Your task to perform on an android device: uninstall "Move to iOS" Image 0: 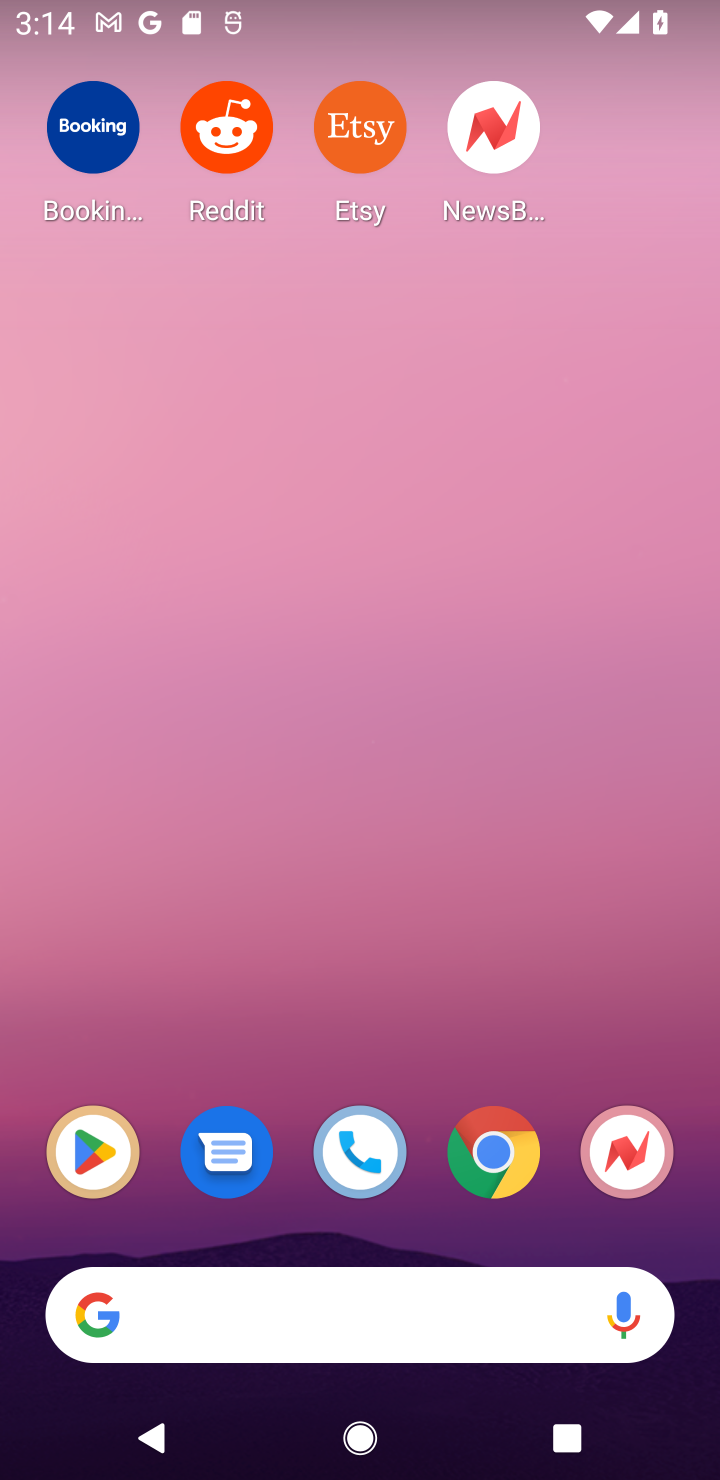
Step 0: drag from (450, 1248) to (273, 384)
Your task to perform on an android device: uninstall "Move to iOS" Image 1: 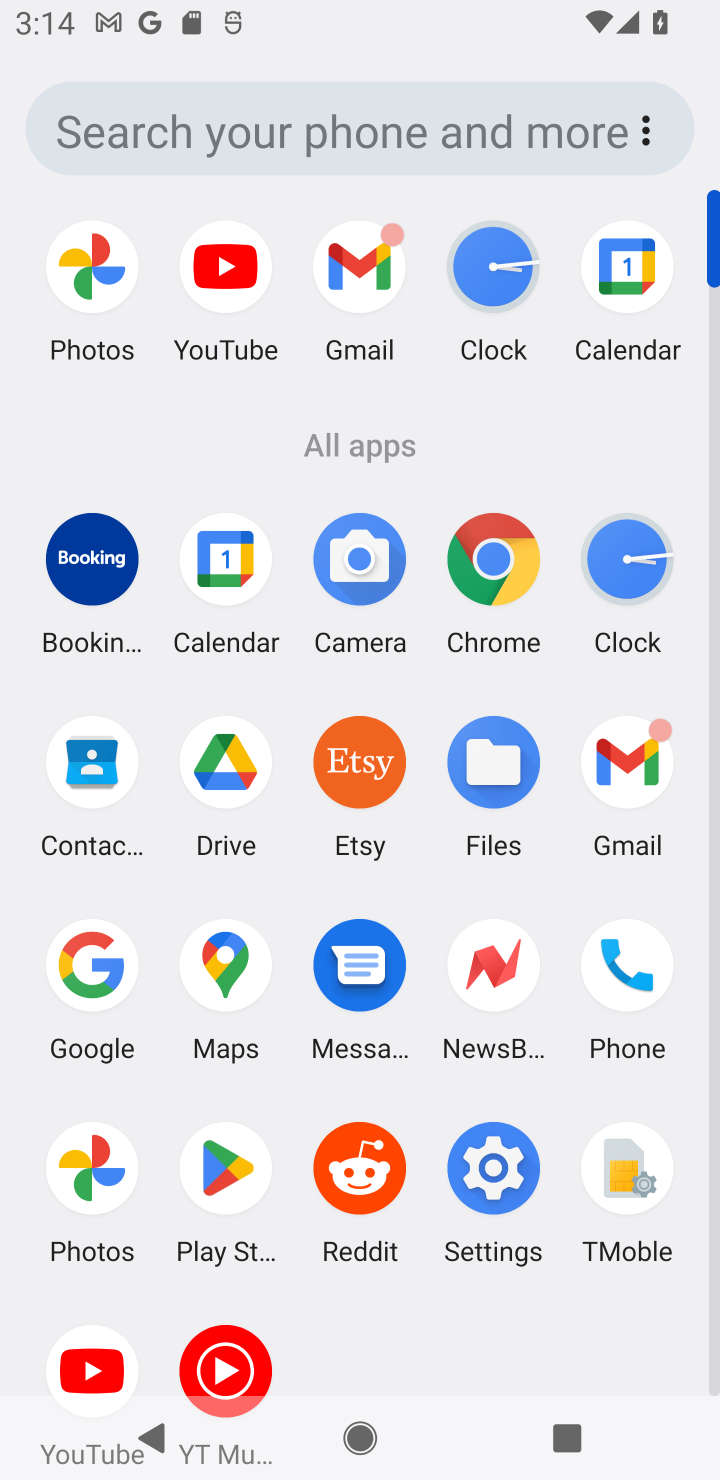
Step 1: click (255, 1218)
Your task to perform on an android device: uninstall "Move to iOS" Image 2: 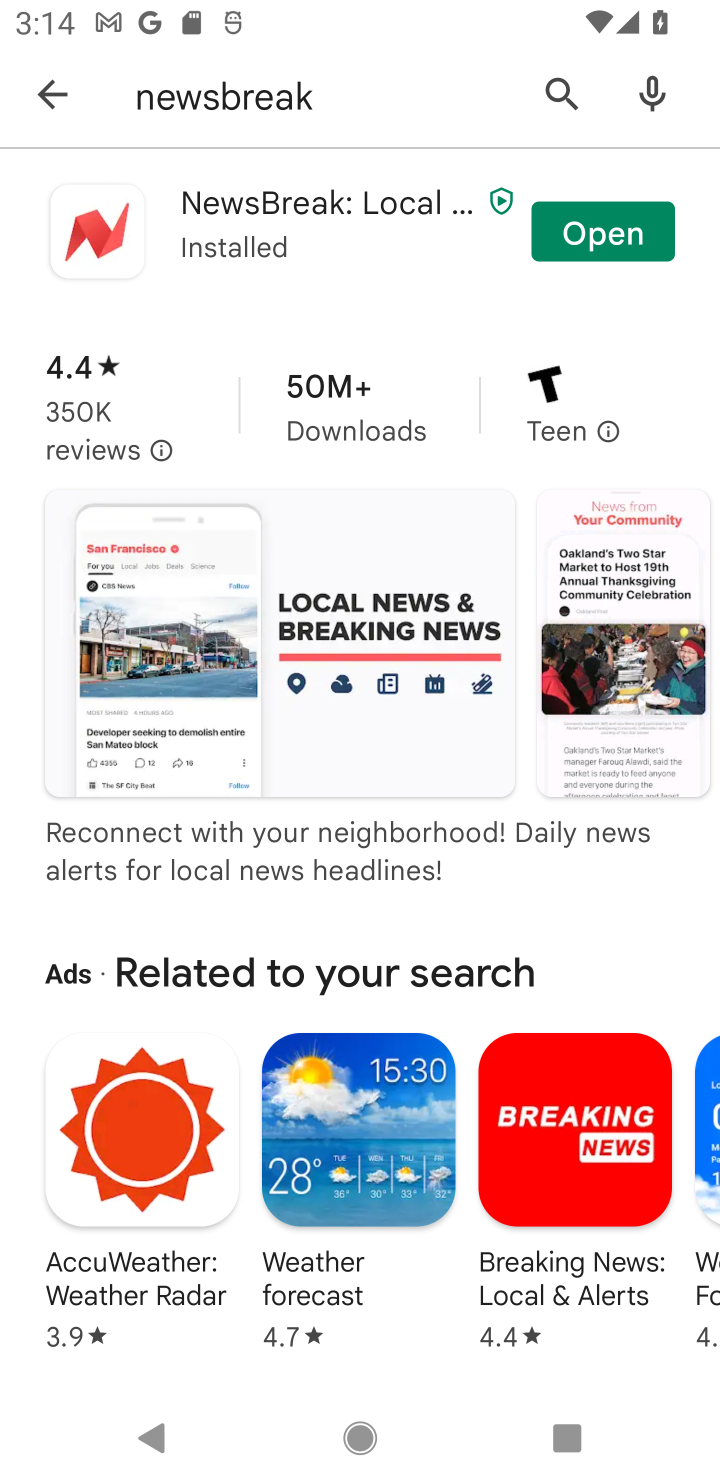
Step 2: click (88, 108)
Your task to perform on an android device: uninstall "Move to iOS" Image 3: 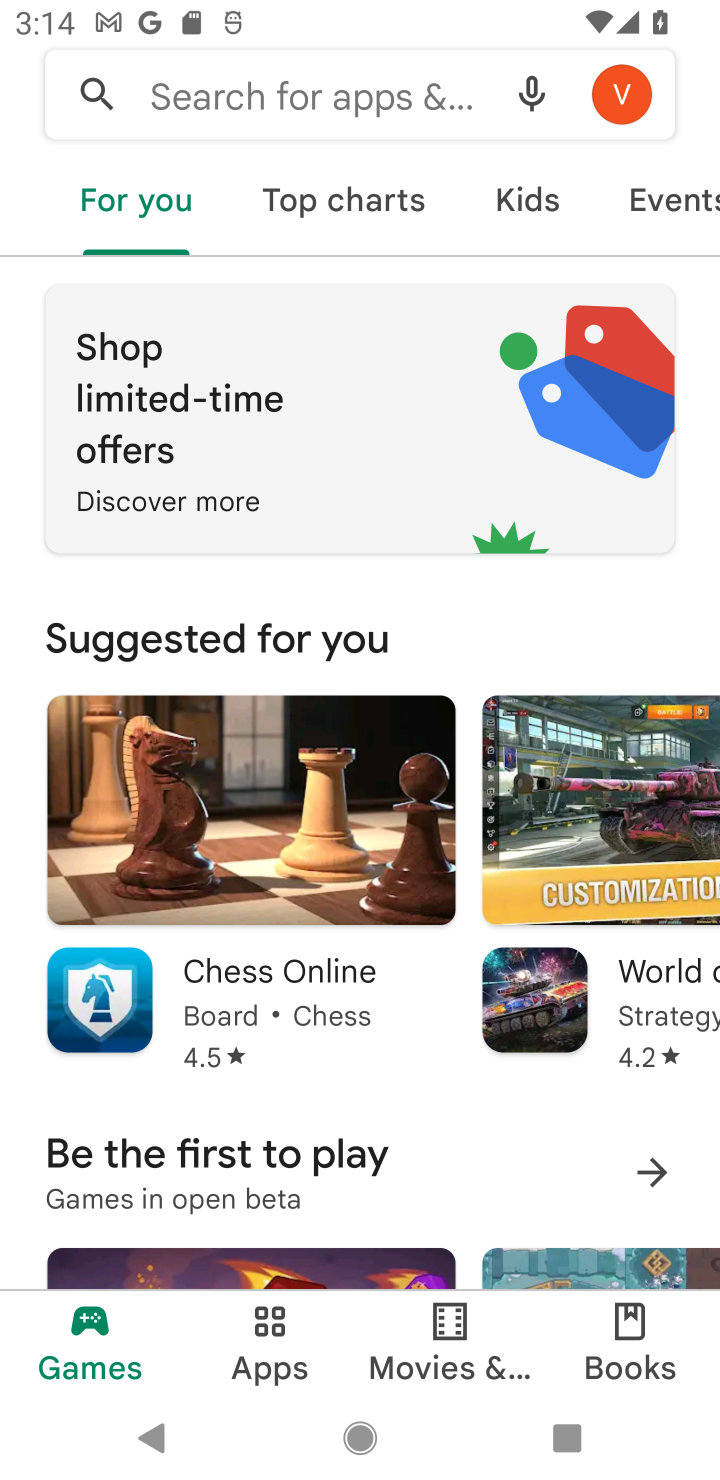
Step 3: click (217, 106)
Your task to perform on an android device: uninstall "Move to iOS" Image 4: 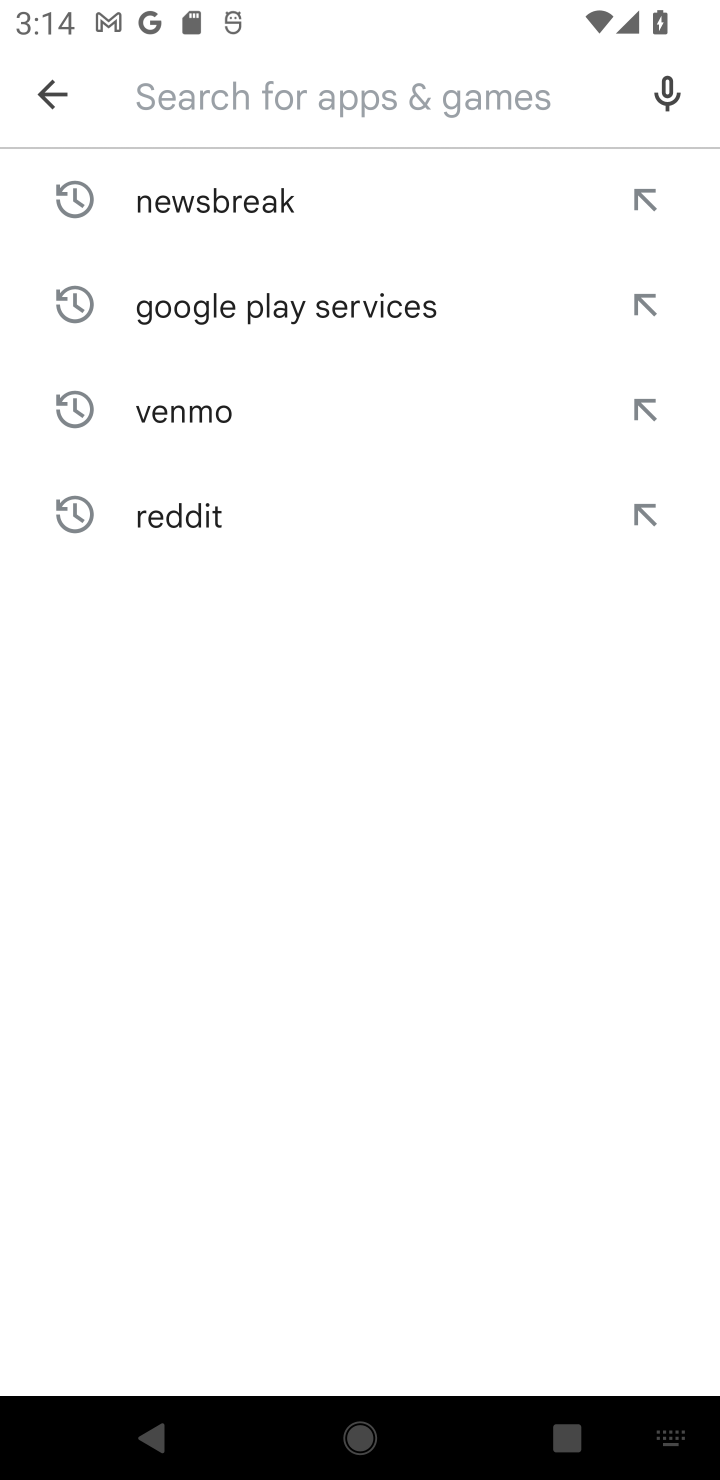
Step 4: type "Move to iOS"
Your task to perform on an android device: uninstall "Move to iOS" Image 5: 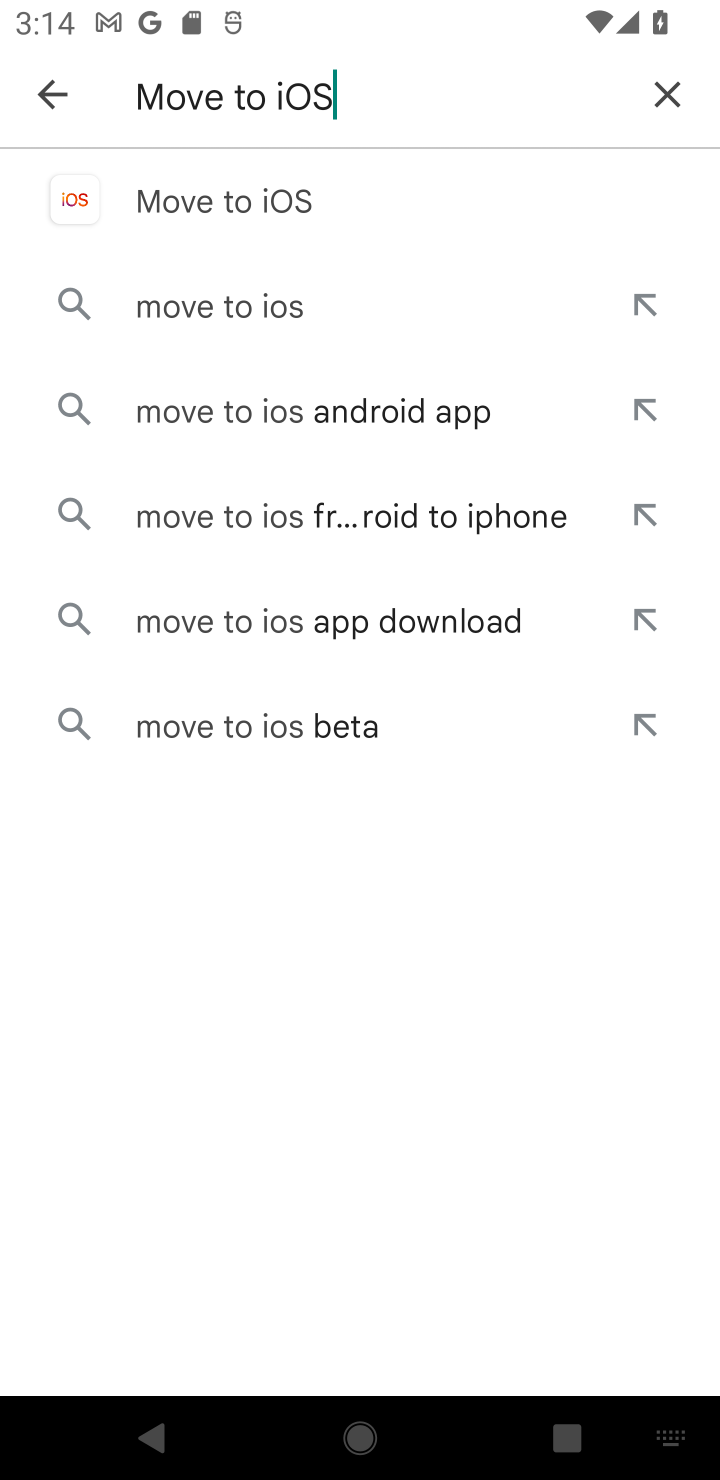
Step 5: click (306, 175)
Your task to perform on an android device: uninstall "Move to iOS" Image 6: 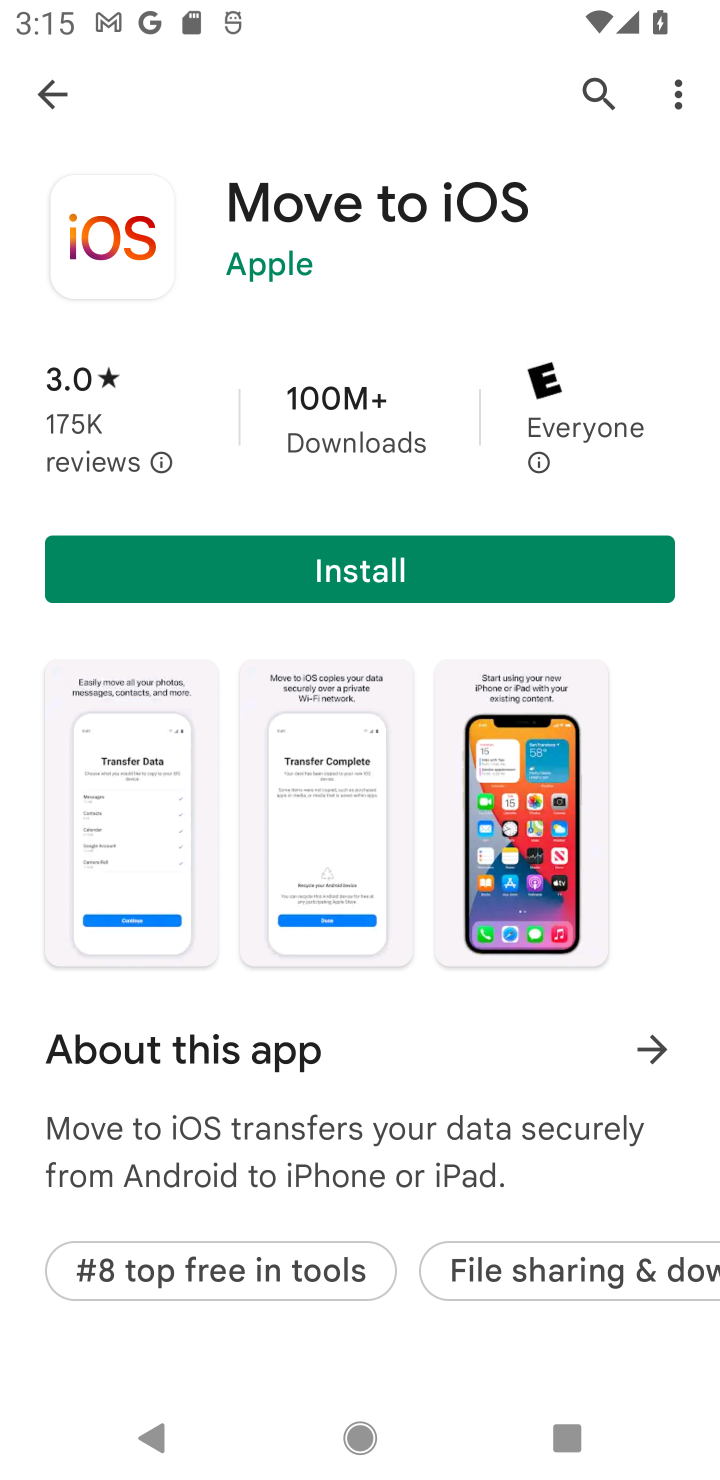
Step 6: task complete